Your task to perform on an android device: Clear the cart on amazon.com. Search for "razer deathadder" on amazon.com, select the first entry, add it to the cart, then select checkout. Image 0: 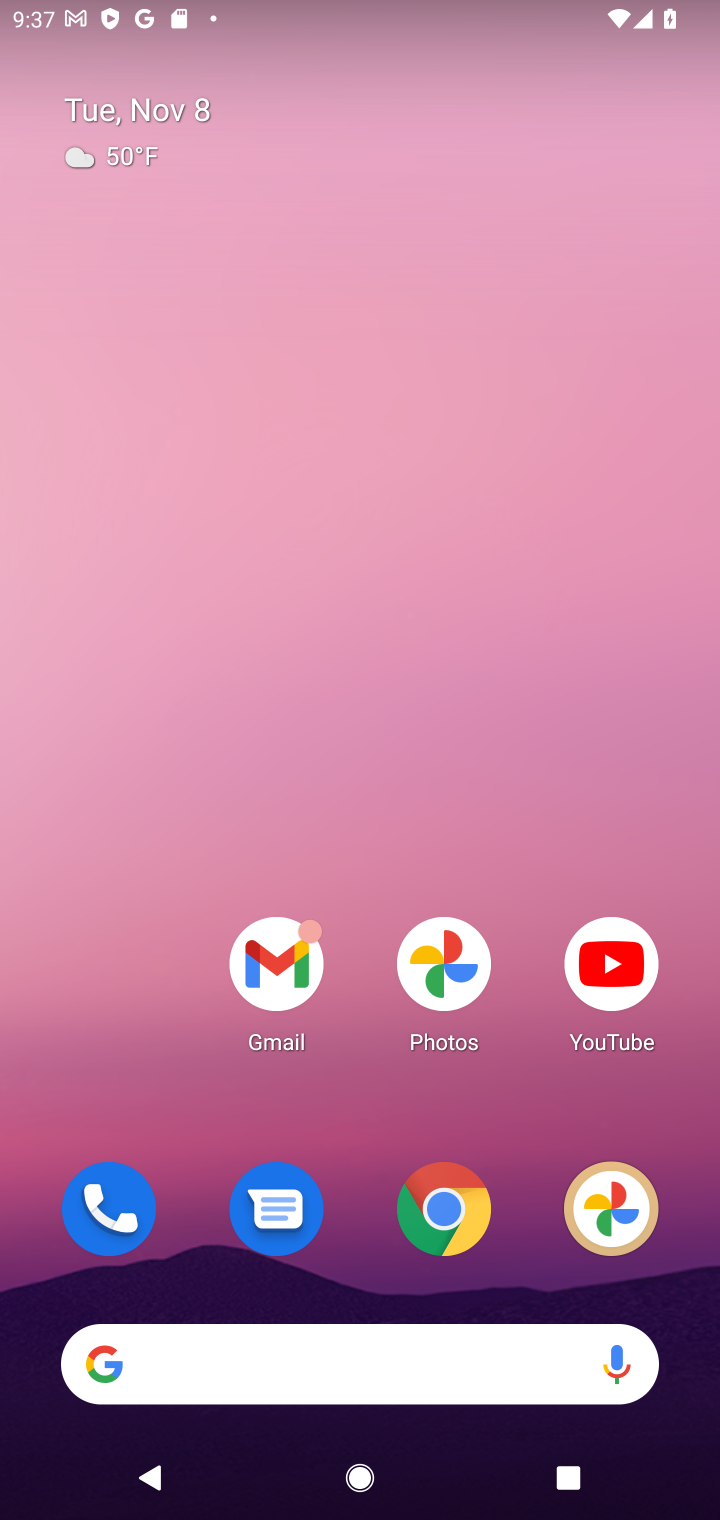
Step 0: click (441, 1252)
Your task to perform on an android device: Clear the cart on amazon.com. Search for "razer deathadder" on amazon.com, select the first entry, add it to the cart, then select checkout. Image 1: 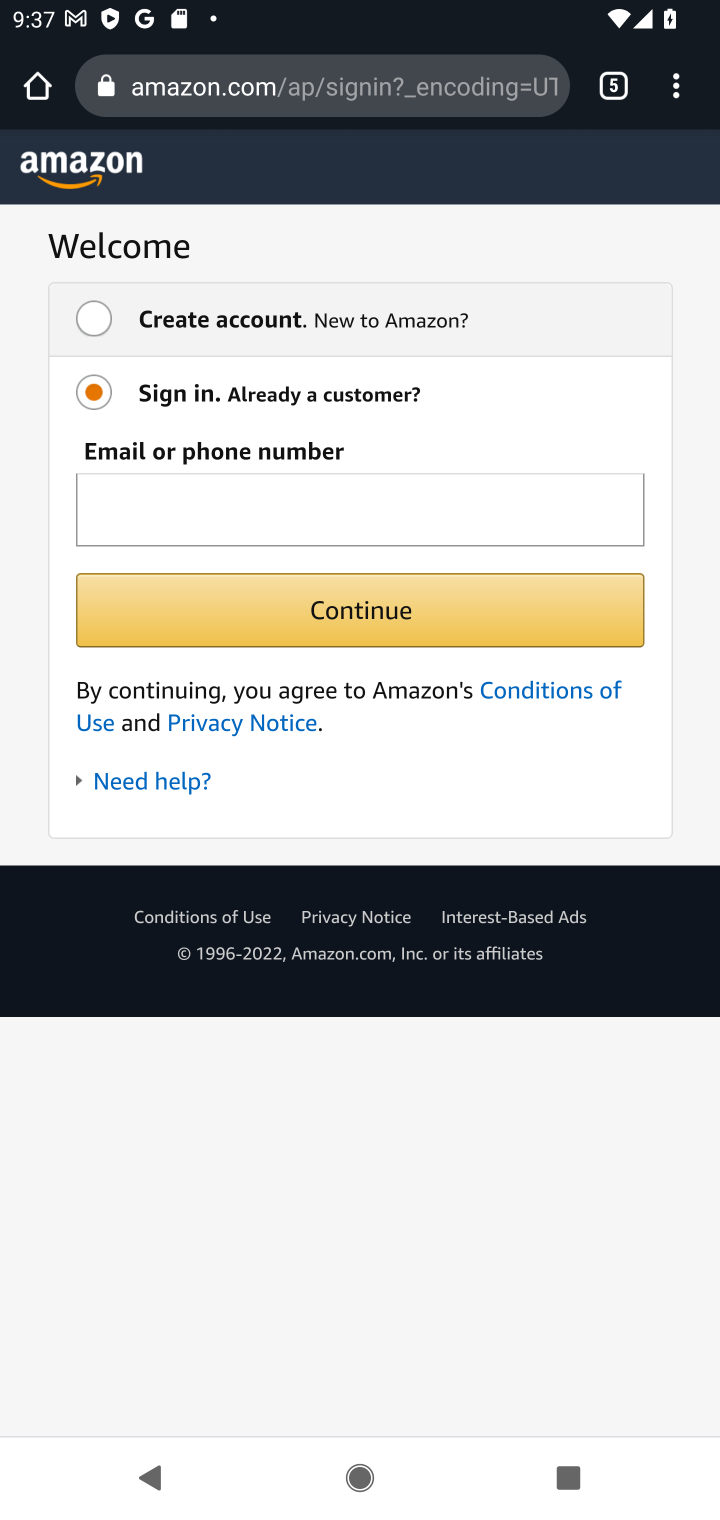
Step 1: press back button
Your task to perform on an android device: Clear the cart on amazon.com. Search for "razer deathadder" on amazon.com, select the first entry, add it to the cart, then select checkout. Image 2: 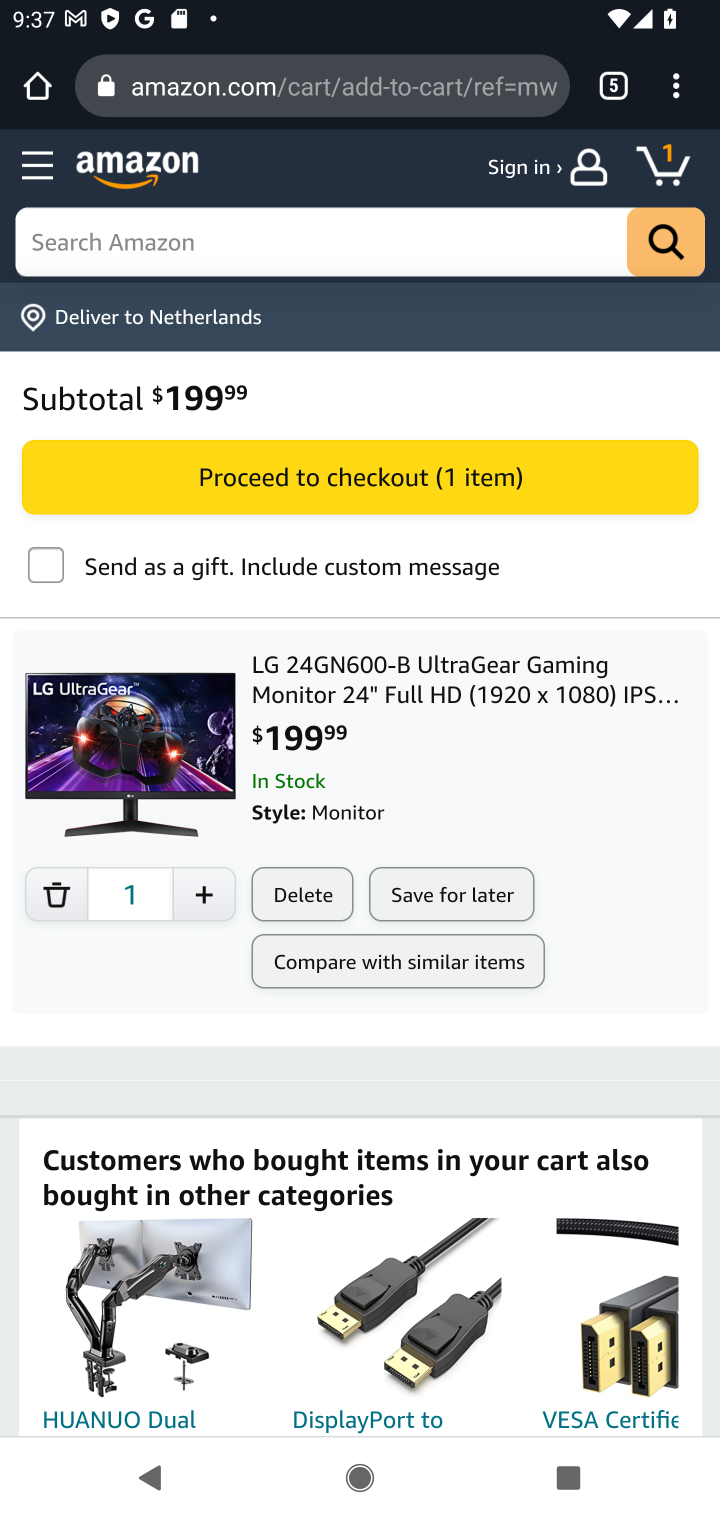
Step 2: click (320, 885)
Your task to perform on an android device: Clear the cart on amazon.com. Search for "razer deathadder" on amazon.com, select the first entry, add it to the cart, then select checkout. Image 3: 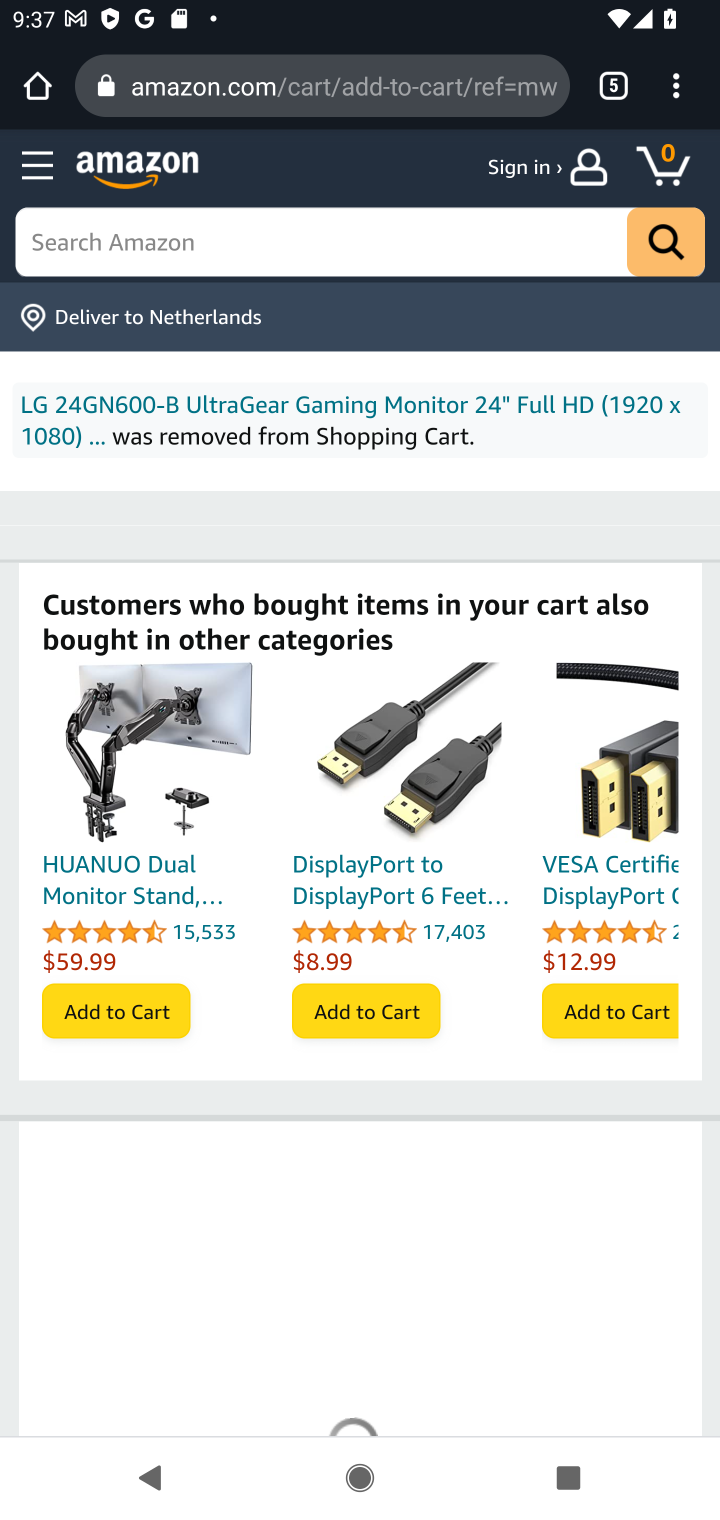
Step 3: click (235, 241)
Your task to perform on an android device: Clear the cart on amazon.com. Search for "razer deathadder" on amazon.com, select the first entry, add it to the cart, then select checkout. Image 4: 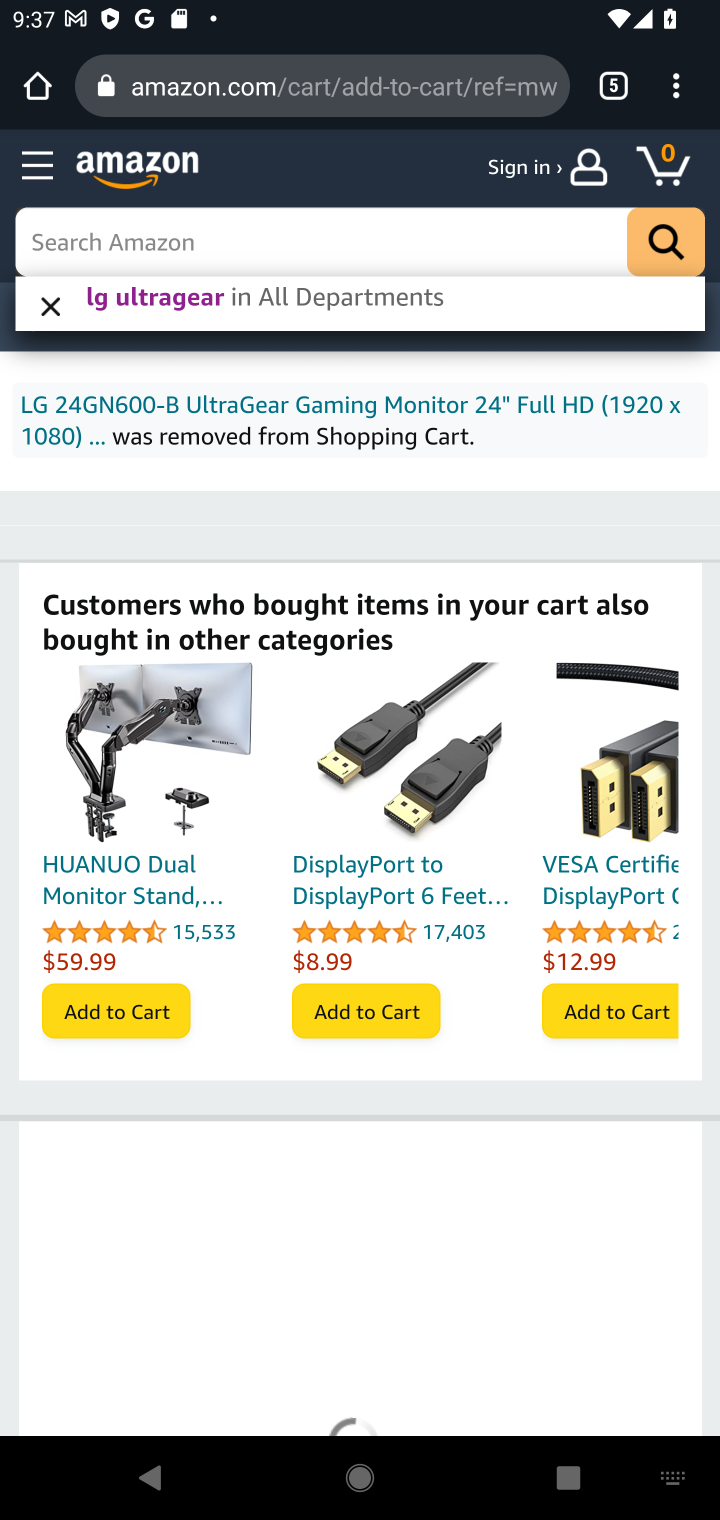
Step 4: type "razer deathadder"
Your task to perform on an android device: Clear the cart on amazon.com. Search for "razer deathadder" on amazon.com, select the first entry, add it to the cart, then select checkout. Image 5: 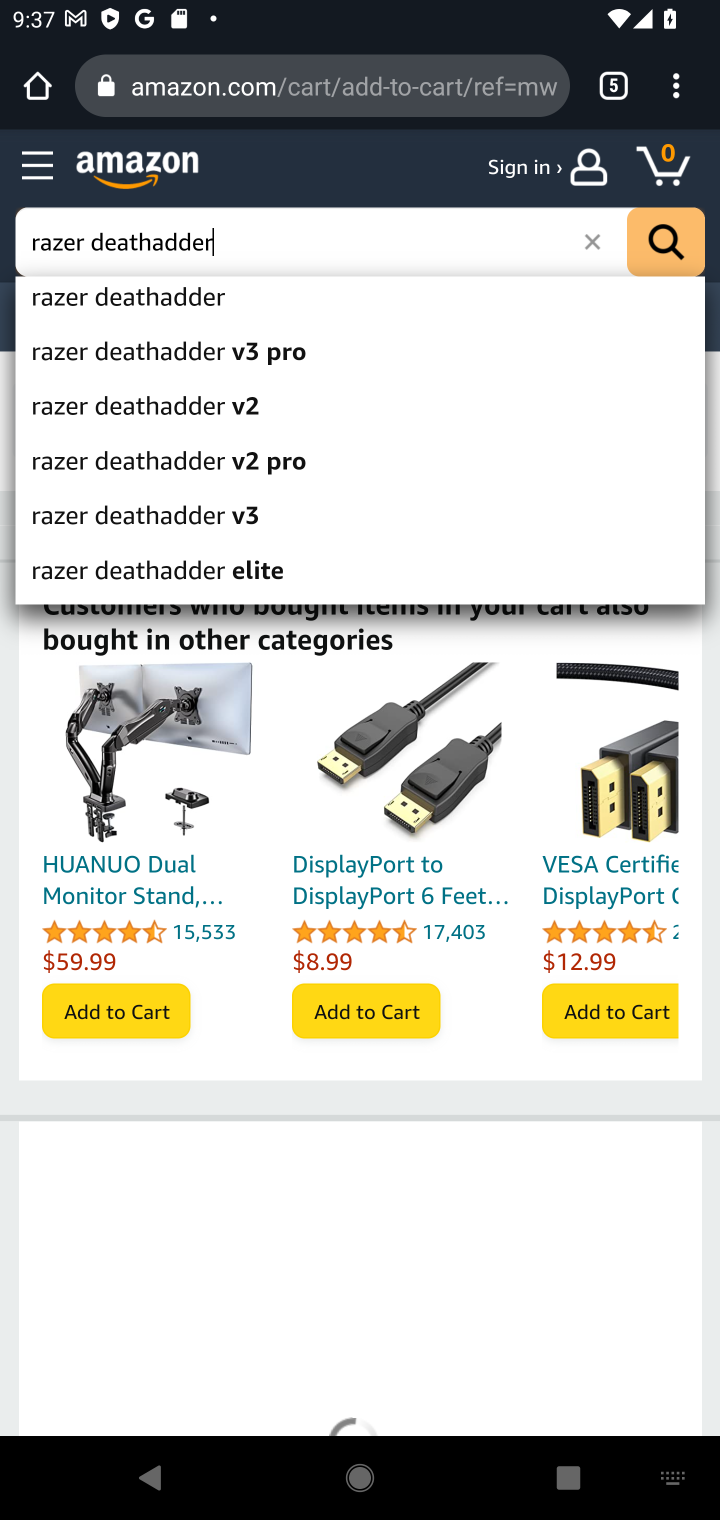
Step 5: click (210, 299)
Your task to perform on an android device: Clear the cart on amazon.com. Search for "razer deathadder" on amazon.com, select the first entry, add it to the cart, then select checkout. Image 6: 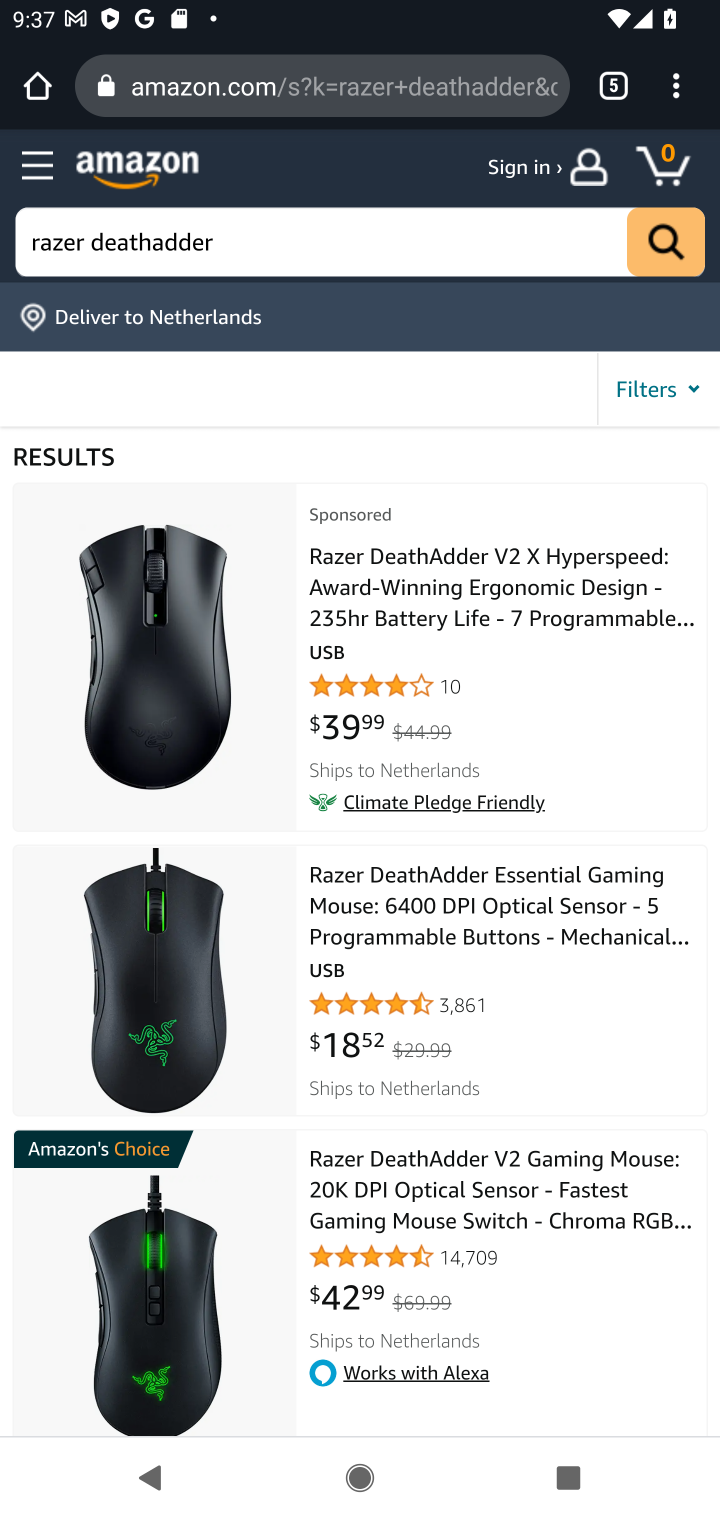
Step 6: click (396, 570)
Your task to perform on an android device: Clear the cart on amazon.com. Search for "razer deathadder" on amazon.com, select the first entry, add it to the cart, then select checkout. Image 7: 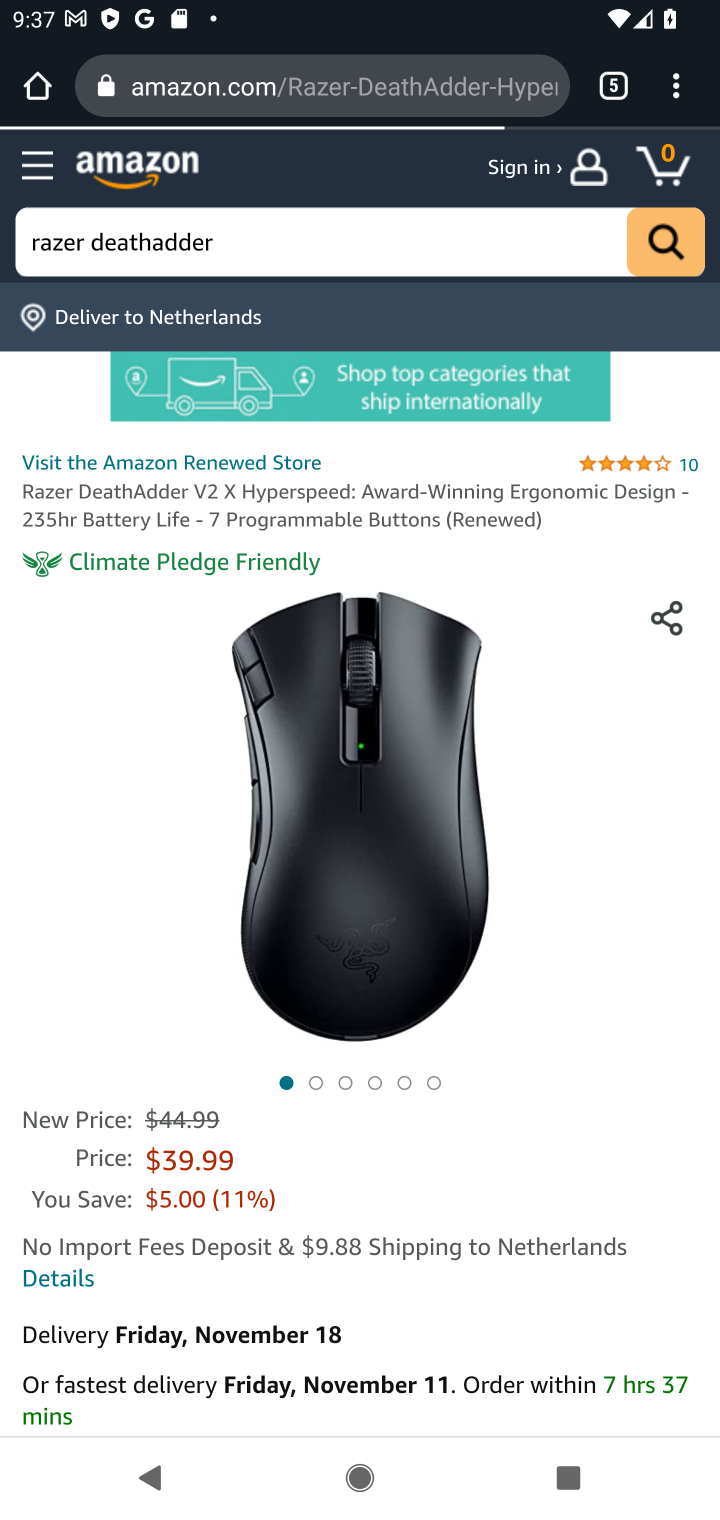
Step 7: drag from (444, 1406) to (613, 217)
Your task to perform on an android device: Clear the cart on amazon.com. Search for "razer deathadder" on amazon.com, select the first entry, add it to the cart, then select checkout. Image 8: 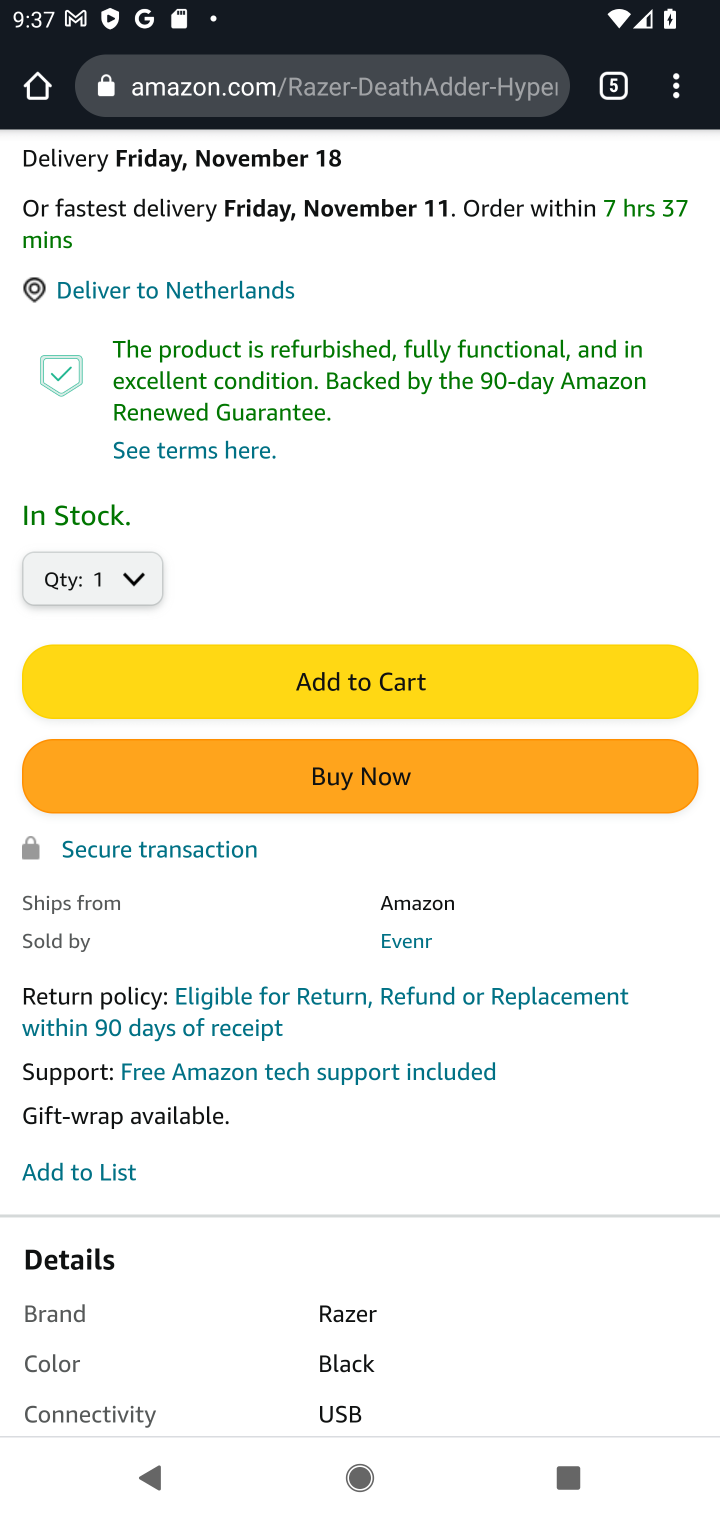
Step 8: click (416, 685)
Your task to perform on an android device: Clear the cart on amazon.com. Search for "razer deathadder" on amazon.com, select the first entry, add it to the cart, then select checkout. Image 9: 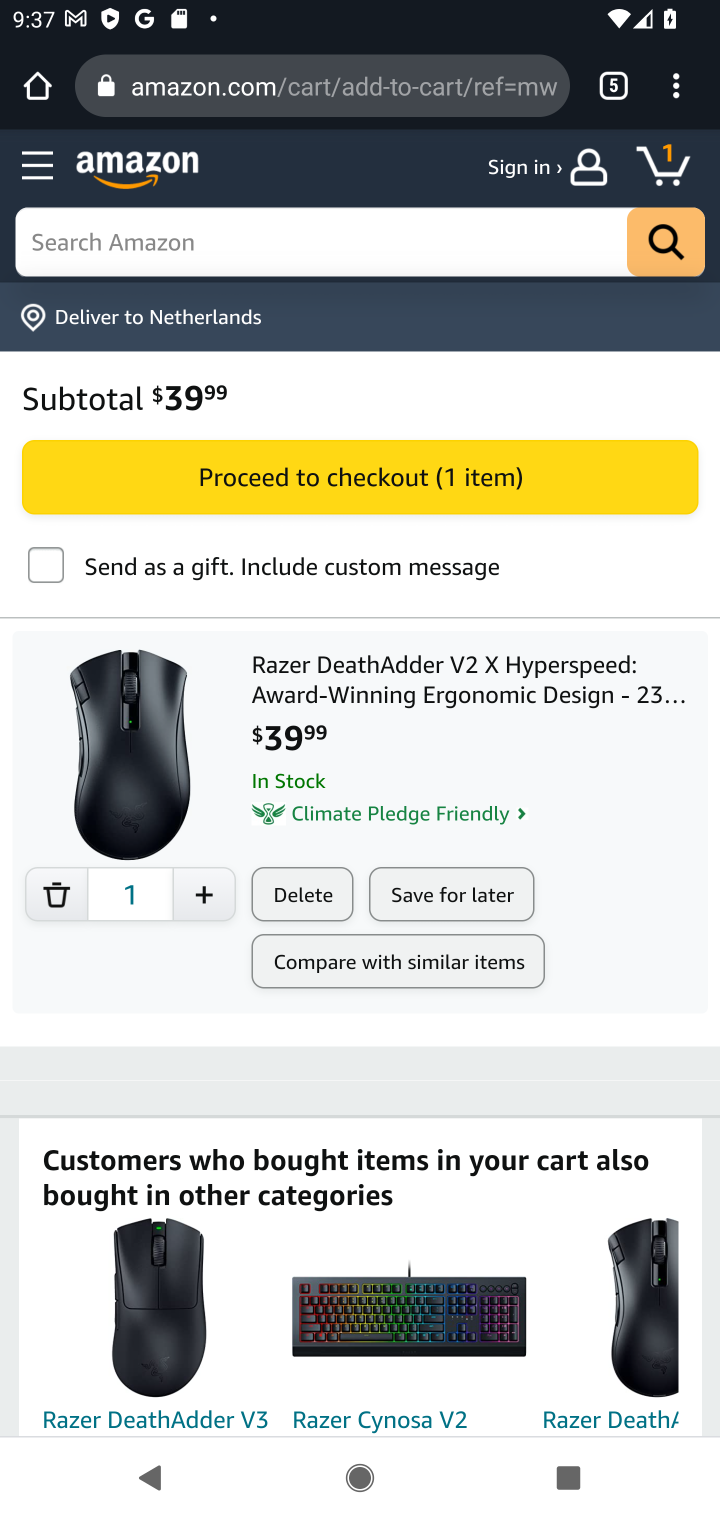
Step 9: task complete